Your task to perform on an android device: Go to privacy settings Image 0: 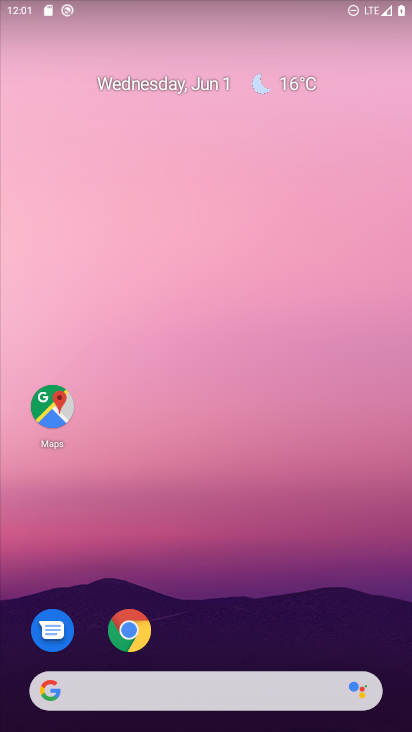
Step 0: drag from (319, 598) to (231, 118)
Your task to perform on an android device: Go to privacy settings Image 1: 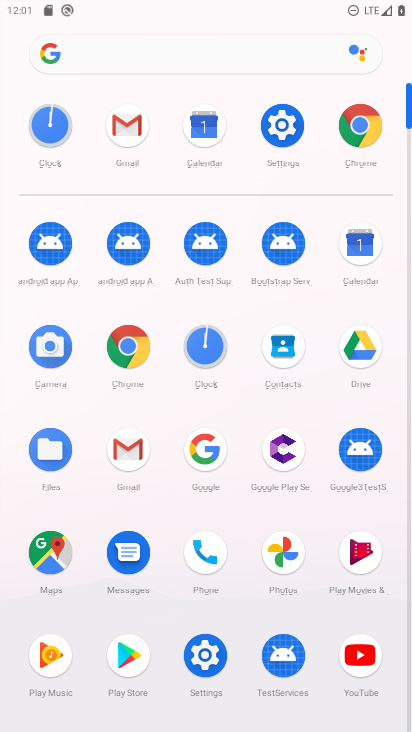
Step 1: click (280, 132)
Your task to perform on an android device: Go to privacy settings Image 2: 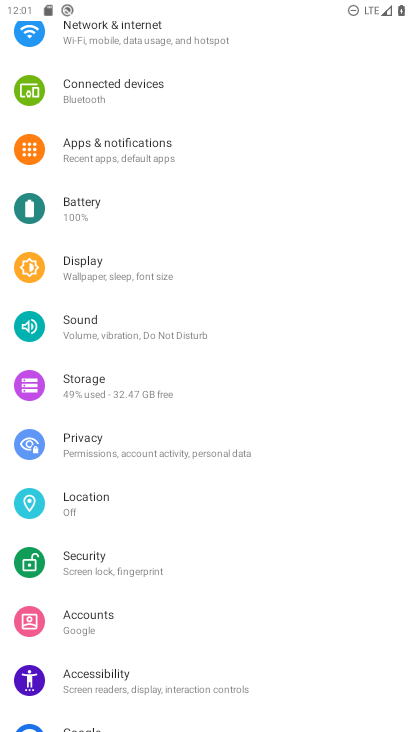
Step 2: drag from (185, 574) to (311, 92)
Your task to perform on an android device: Go to privacy settings Image 3: 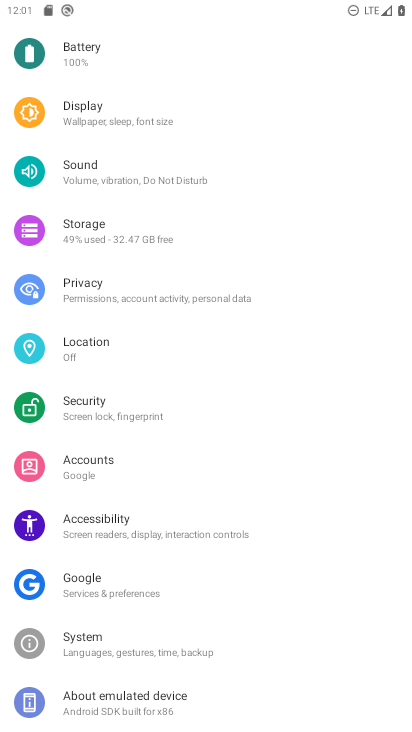
Step 3: click (126, 280)
Your task to perform on an android device: Go to privacy settings Image 4: 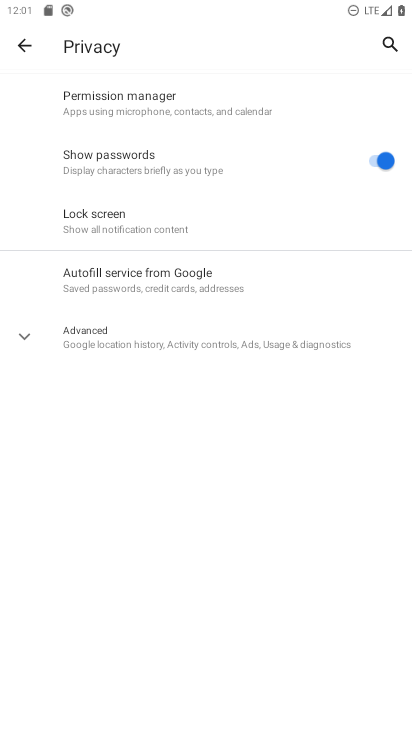
Step 4: task complete